Your task to perform on an android device: Open Youtube and go to the subscriptions tab Image 0: 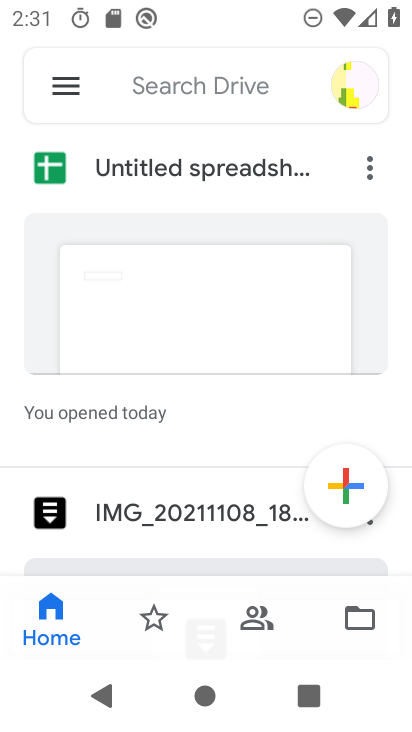
Step 0: press home button
Your task to perform on an android device: Open Youtube and go to the subscriptions tab Image 1: 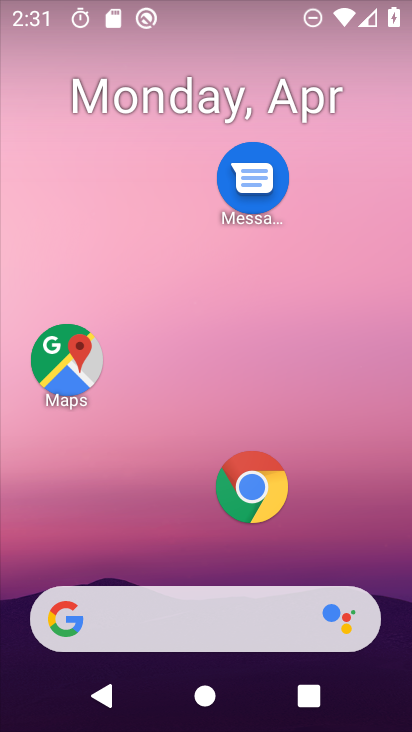
Step 1: drag from (209, 568) to (263, 20)
Your task to perform on an android device: Open Youtube and go to the subscriptions tab Image 2: 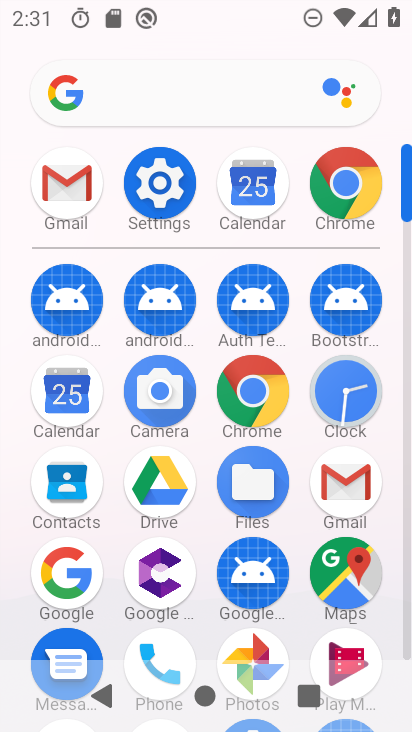
Step 2: drag from (294, 566) to (308, 107)
Your task to perform on an android device: Open Youtube and go to the subscriptions tab Image 3: 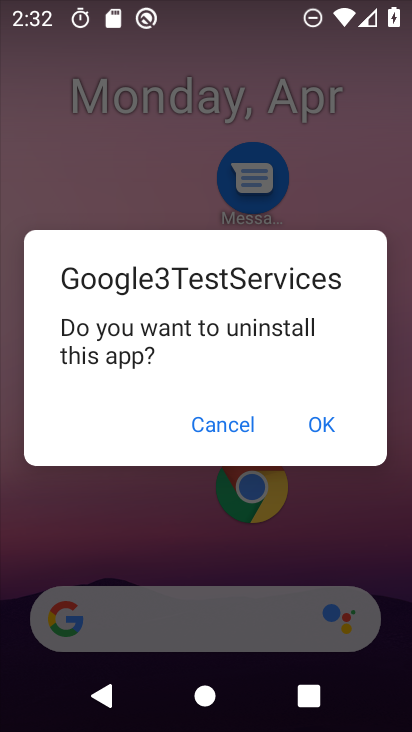
Step 3: click (240, 422)
Your task to perform on an android device: Open Youtube and go to the subscriptions tab Image 4: 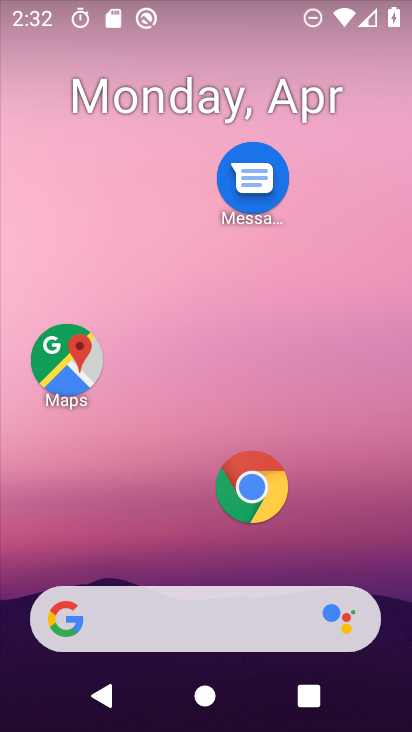
Step 4: drag from (217, 516) to (318, 0)
Your task to perform on an android device: Open Youtube and go to the subscriptions tab Image 5: 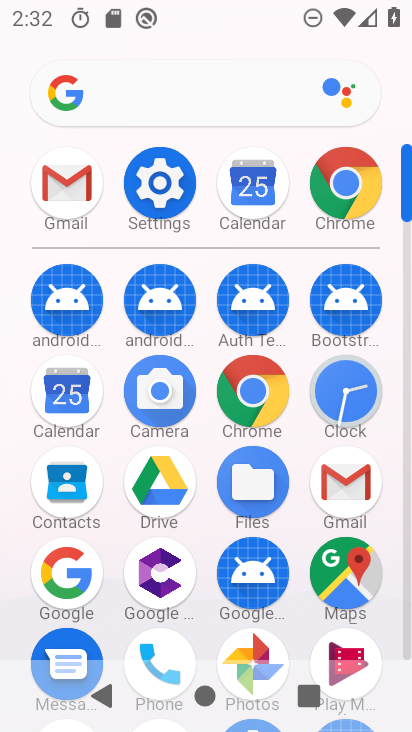
Step 5: drag from (306, 580) to (297, 82)
Your task to perform on an android device: Open Youtube and go to the subscriptions tab Image 6: 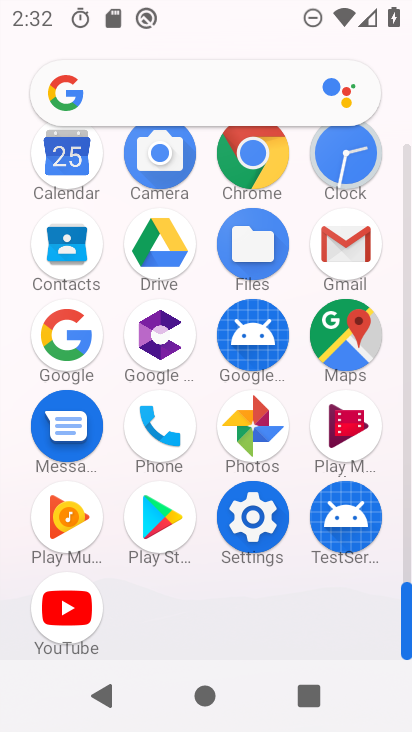
Step 6: click (64, 602)
Your task to perform on an android device: Open Youtube and go to the subscriptions tab Image 7: 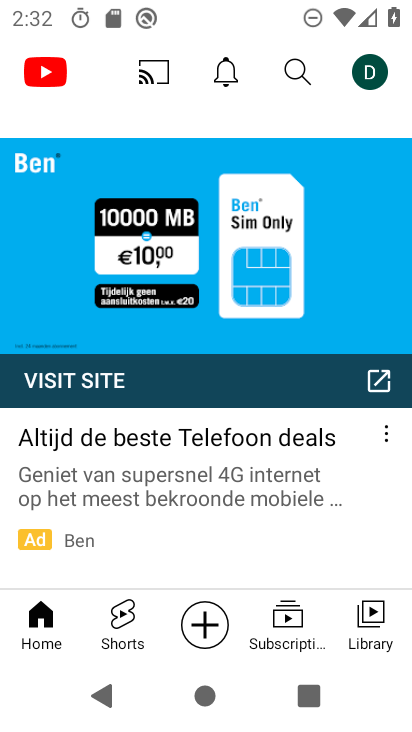
Step 7: click (297, 627)
Your task to perform on an android device: Open Youtube and go to the subscriptions tab Image 8: 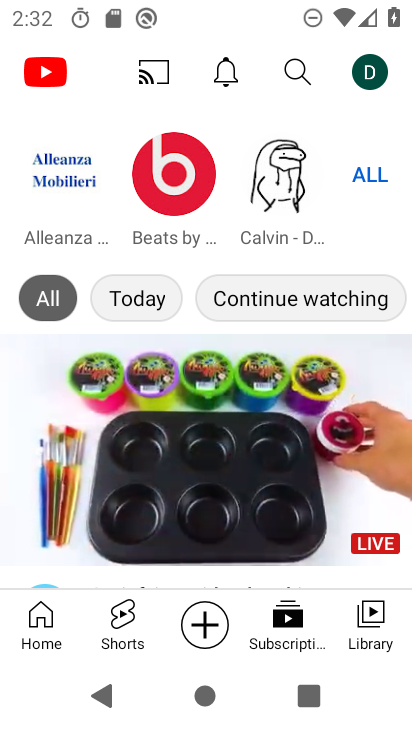
Step 8: task complete